Your task to perform on an android device: Go to eBay Image 0: 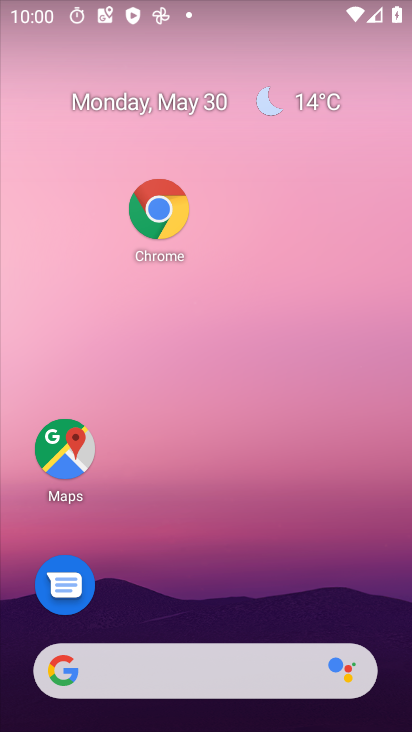
Step 0: drag from (233, 488) to (265, 51)
Your task to perform on an android device: Go to eBay Image 1: 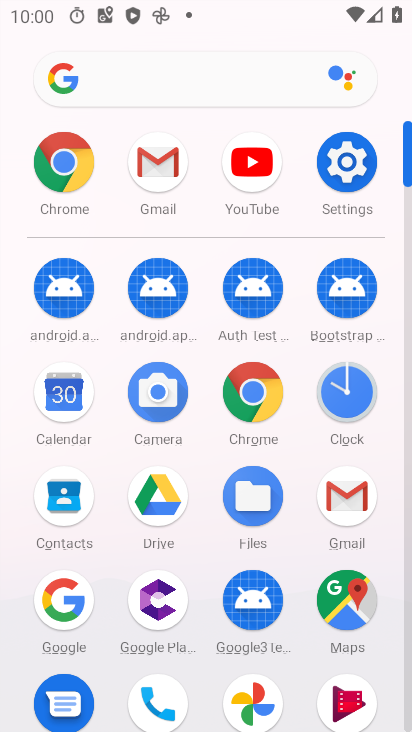
Step 1: click (153, 76)
Your task to perform on an android device: Go to eBay Image 2: 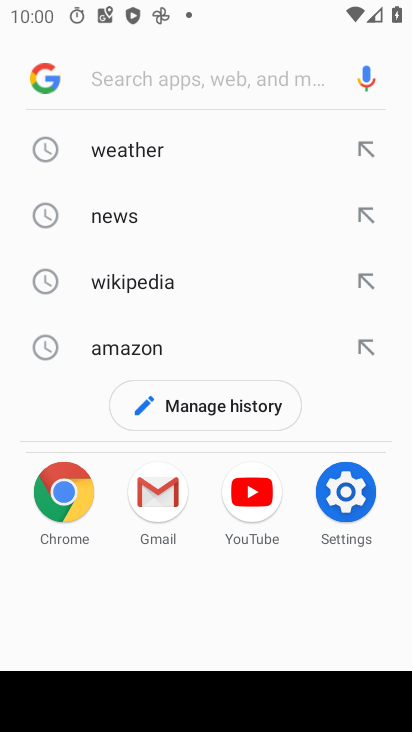
Step 2: type "ebay"
Your task to perform on an android device: Go to eBay Image 3: 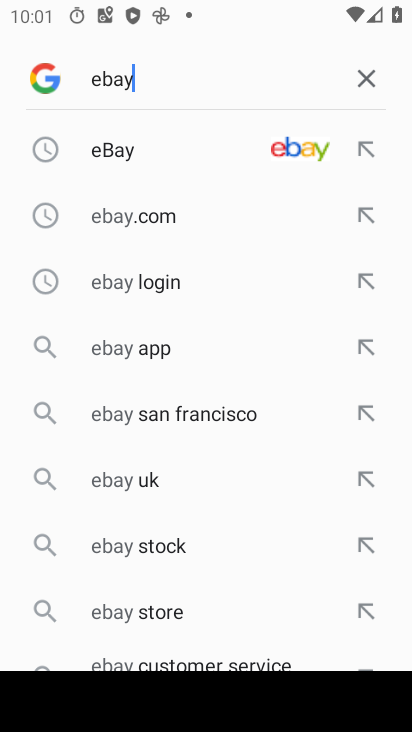
Step 3: click (141, 150)
Your task to perform on an android device: Go to eBay Image 4: 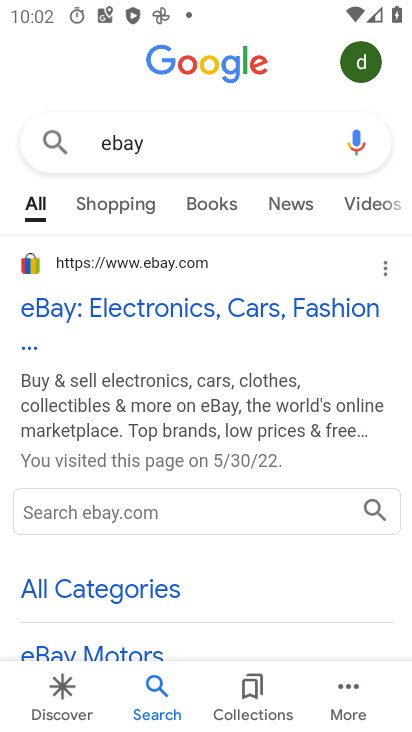
Step 4: click (98, 296)
Your task to perform on an android device: Go to eBay Image 5: 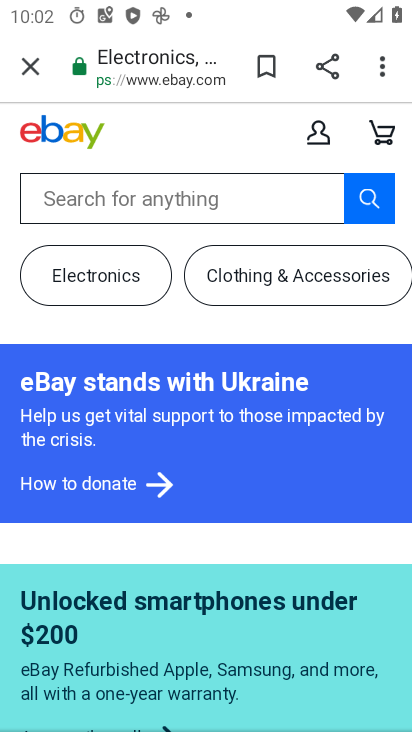
Step 5: task complete